Your task to perform on an android device: toggle wifi Image 0: 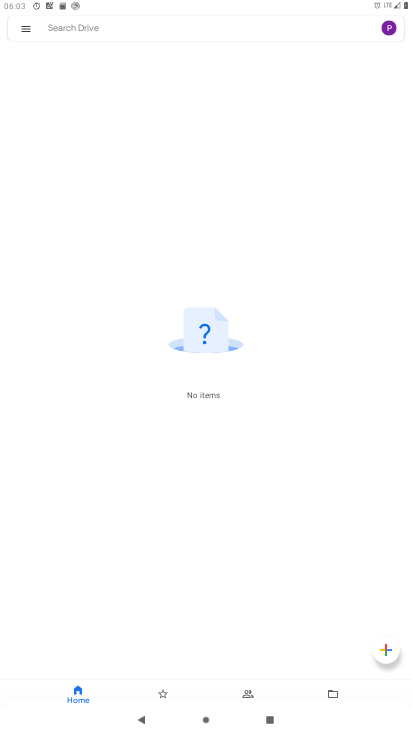
Step 0: drag from (204, 13) to (204, 558)
Your task to perform on an android device: toggle wifi Image 1: 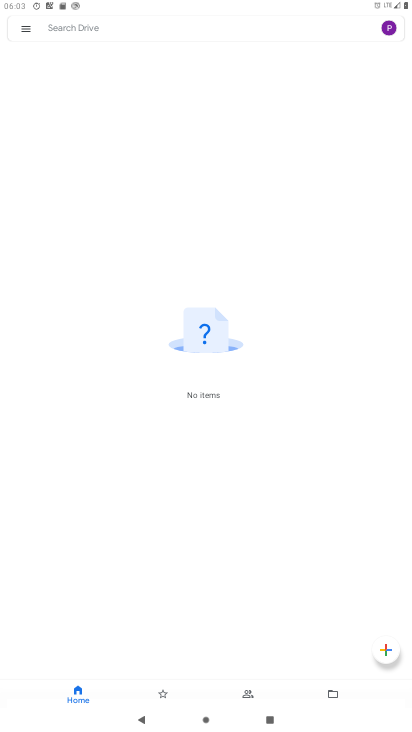
Step 1: drag from (230, 428) to (257, 567)
Your task to perform on an android device: toggle wifi Image 2: 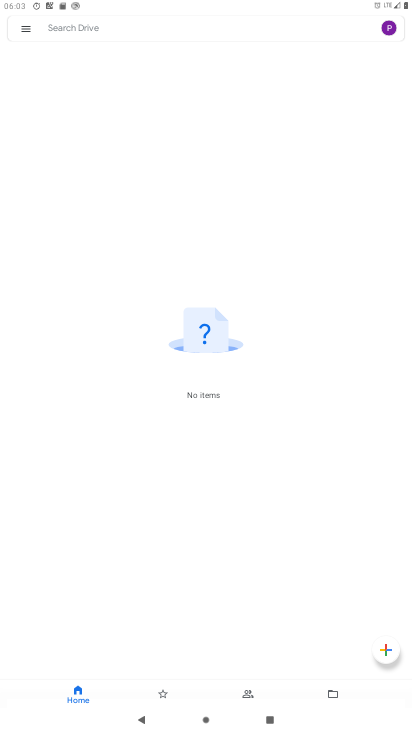
Step 2: drag from (111, 7) to (211, 570)
Your task to perform on an android device: toggle wifi Image 3: 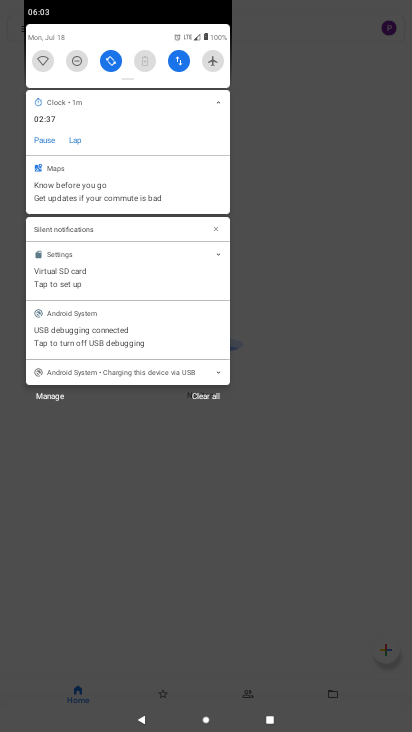
Step 3: click (46, 65)
Your task to perform on an android device: toggle wifi Image 4: 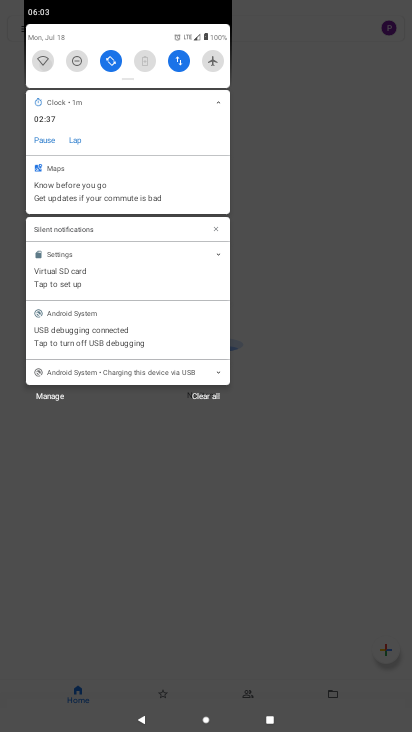
Step 4: click (46, 65)
Your task to perform on an android device: toggle wifi Image 5: 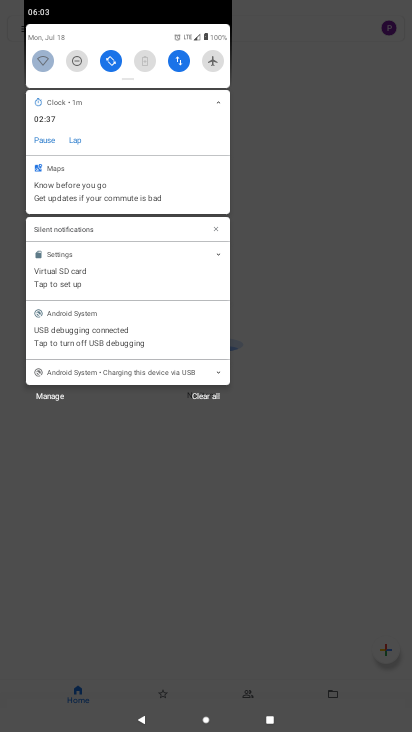
Step 5: click (46, 65)
Your task to perform on an android device: toggle wifi Image 6: 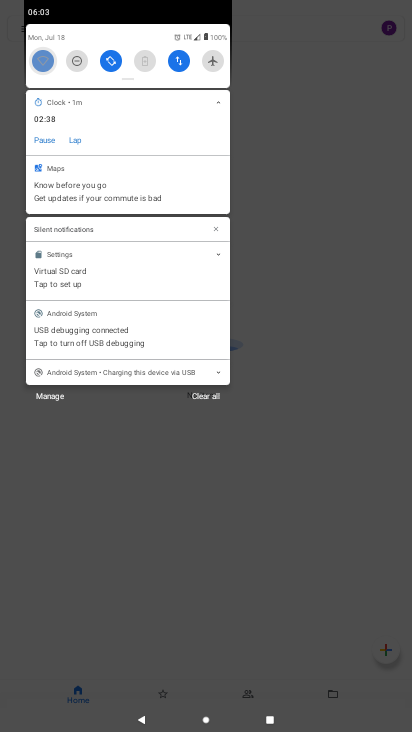
Step 6: click (46, 65)
Your task to perform on an android device: toggle wifi Image 7: 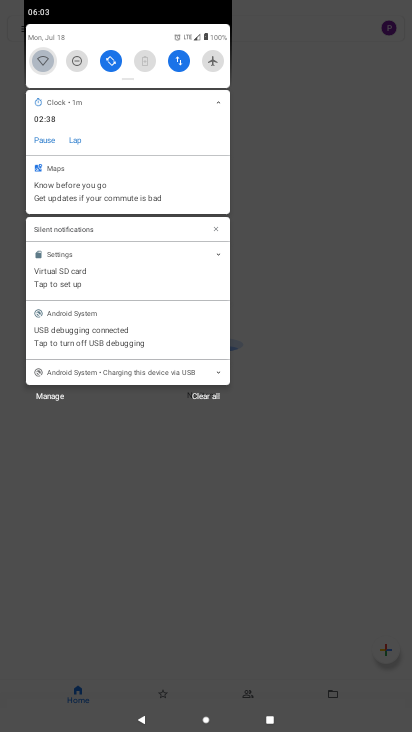
Step 7: click (46, 65)
Your task to perform on an android device: toggle wifi Image 8: 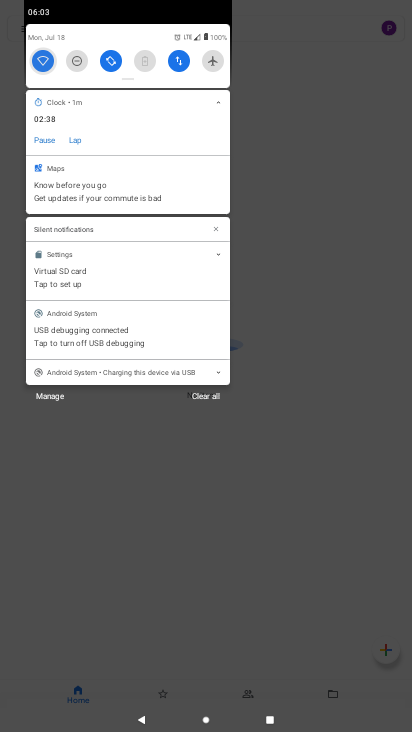
Step 8: click (46, 65)
Your task to perform on an android device: toggle wifi Image 9: 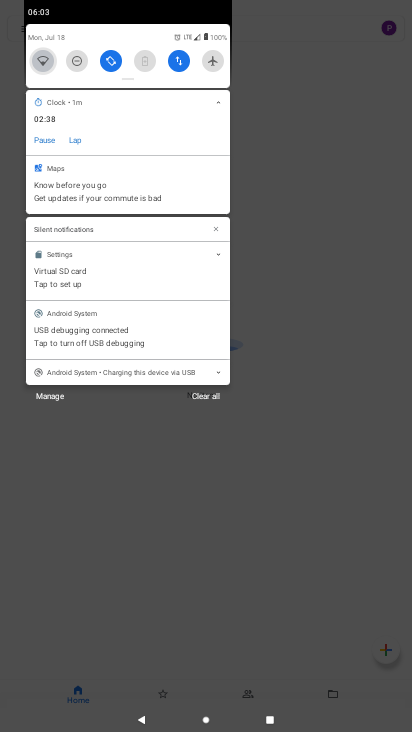
Step 9: click (46, 65)
Your task to perform on an android device: toggle wifi Image 10: 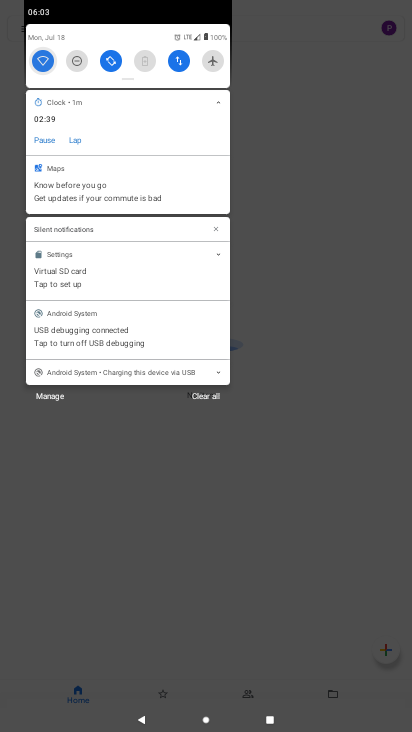
Step 10: click (46, 65)
Your task to perform on an android device: toggle wifi Image 11: 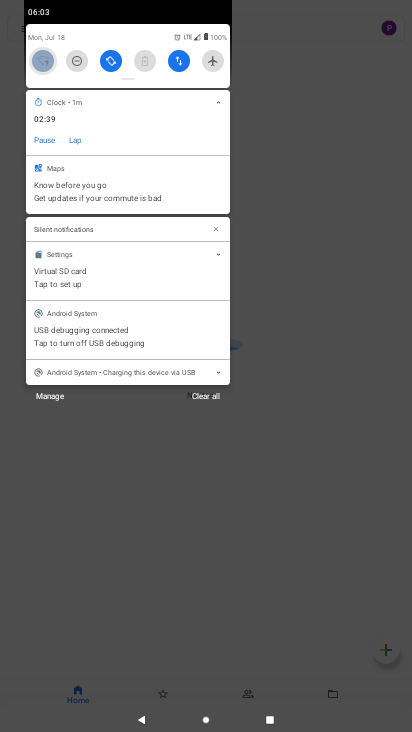
Step 11: click (46, 65)
Your task to perform on an android device: toggle wifi Image 12: 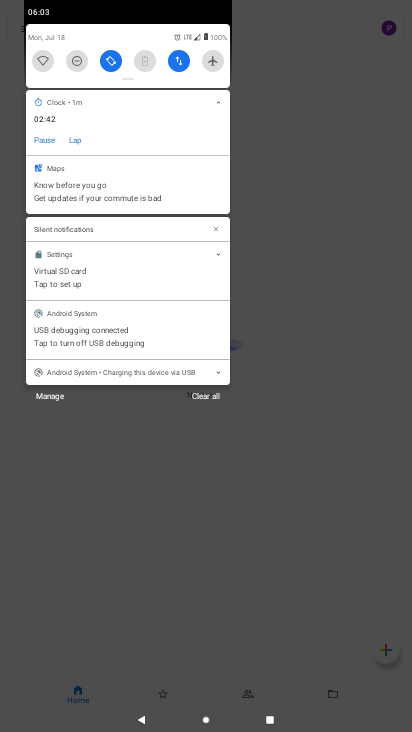
Step 12: click (46, 65)
Your task to perform on an android device: toggle wifi Image 13: 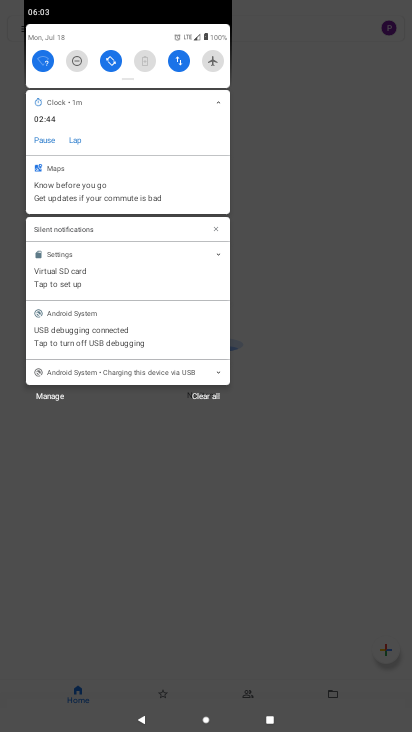
Step 13: task complete